Your task to perform on an android device: Is it going to rain tomorrow? Image 0: 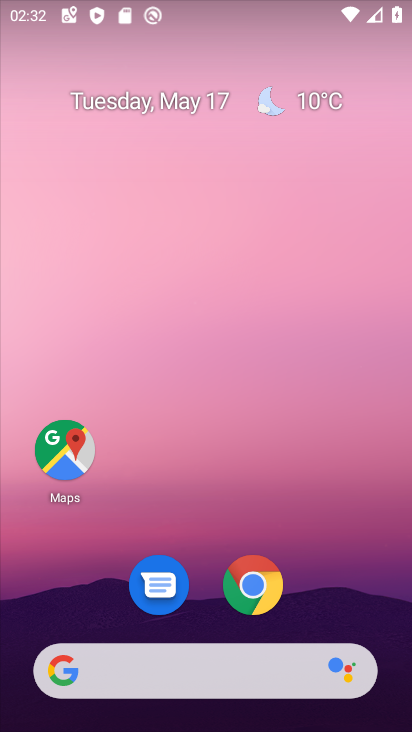
Step 0: click (290, 97)
Your task to perform on an android device: Is it going to rain tomorrow? Image 1: 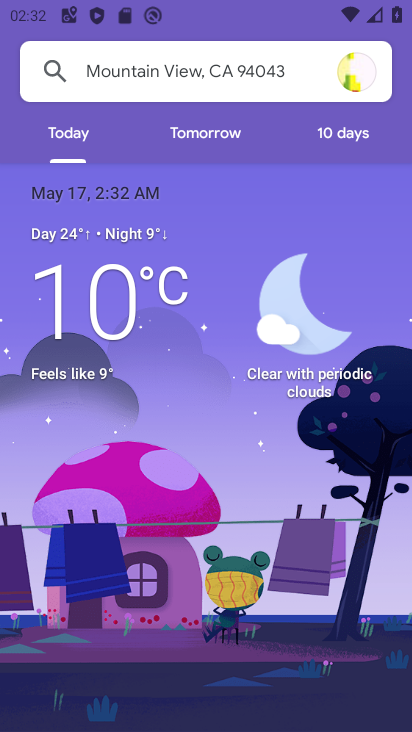
Step 1: click (241, 134)
Your task to perform on an android device: Is it going to rain tomorrow? Image 2: 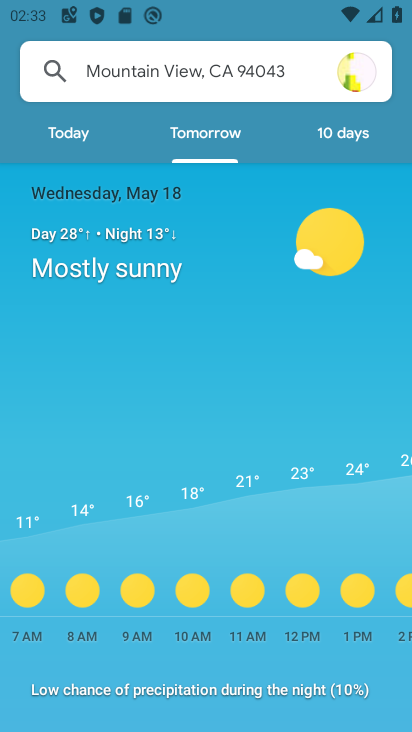
Step 2: task complete